Your task to perform on an android device: What's the weather going to be tomorrow? Image 0: 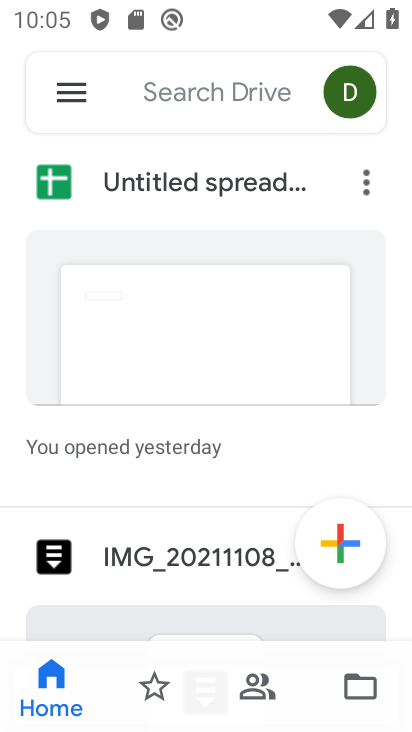
Step 0: press home button
Your task to perform on an android device: What's the weather going to be tomorrow? Image 1: 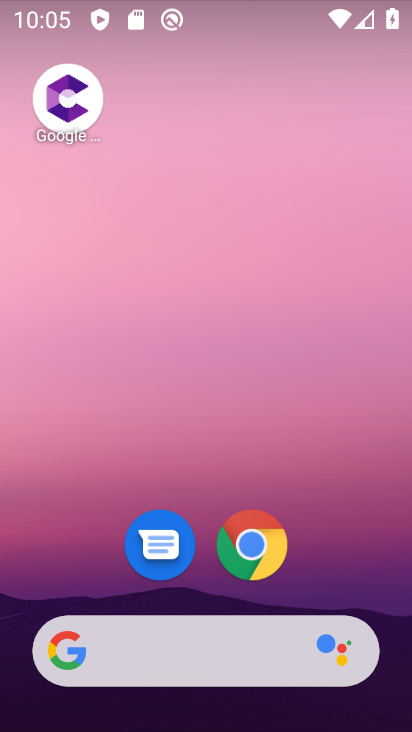
Step 1: drag from (203, 588) to (207, 119)
Your task to perform on an android device: What's the weather going to be tomorrow? Image 2: 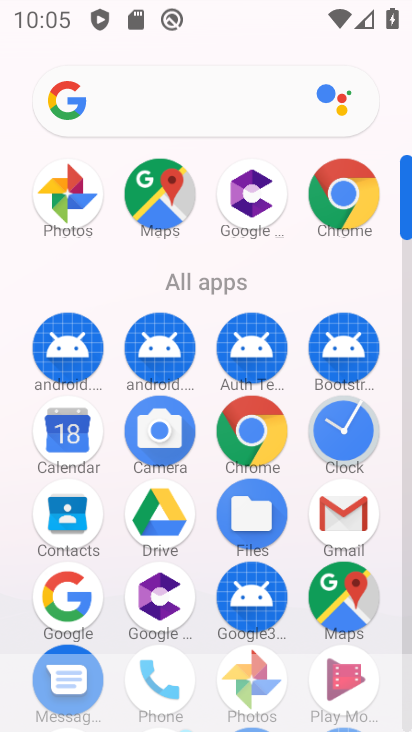
Step 2: click (77, 567)
Your task to perform on an android device: What's the weather going to be tomorrow? Image 3: 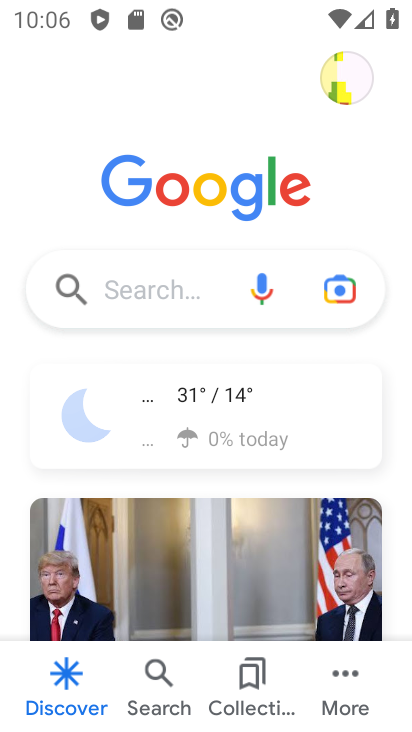
Step 3: drag from (171, 587) to (191, 432)
Your task to perform on an android device: What's the weather going to be tomorrow? Image 4: 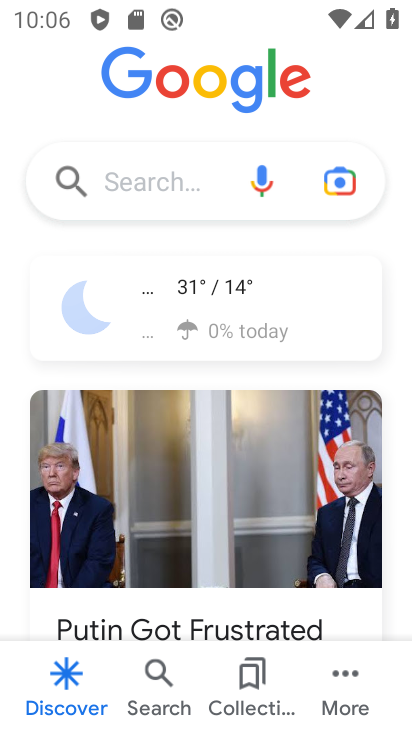
Step 4: drag from (220, 560) to (232, 379)
Your task to perform on an android device: What's the weather going to be tomorrow? Image 5: 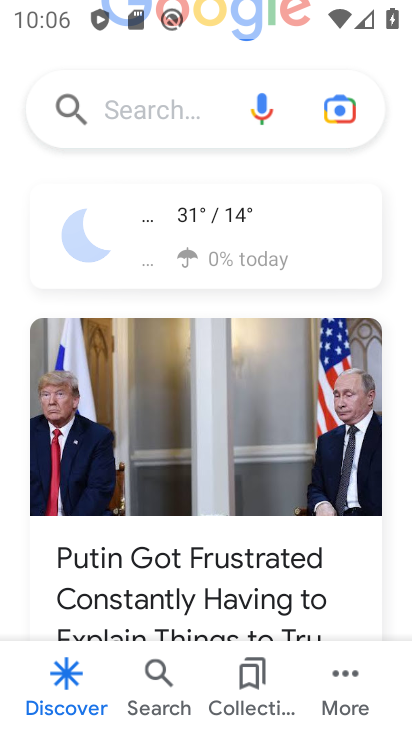
Step 5: click (155, 231)
Your task to perform on an android device: What's the weather going to be tomorrow? Image 6: 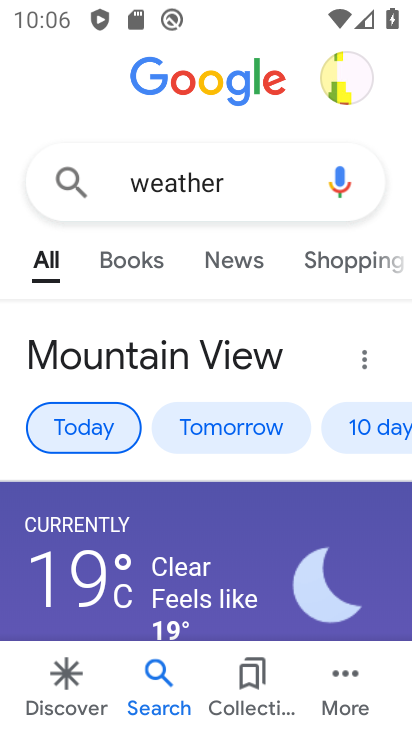
Step 6: click (213, 434)
Your task to perform on an android device: What's the weather going to be tomorrow? Image 7: 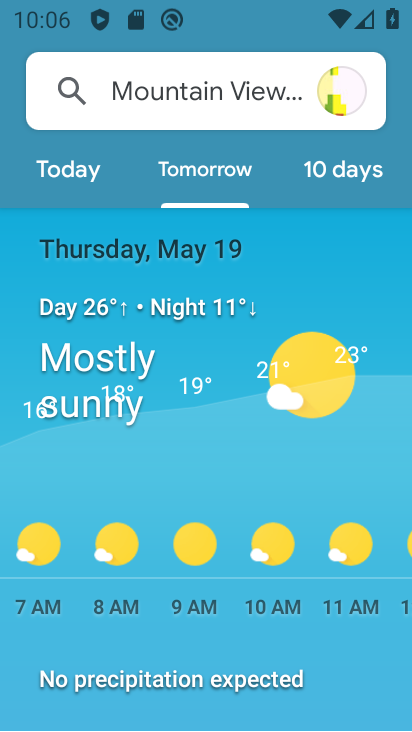
Step 7: task complete